Your task to perform on an android device: set the stopwatch Image 0: 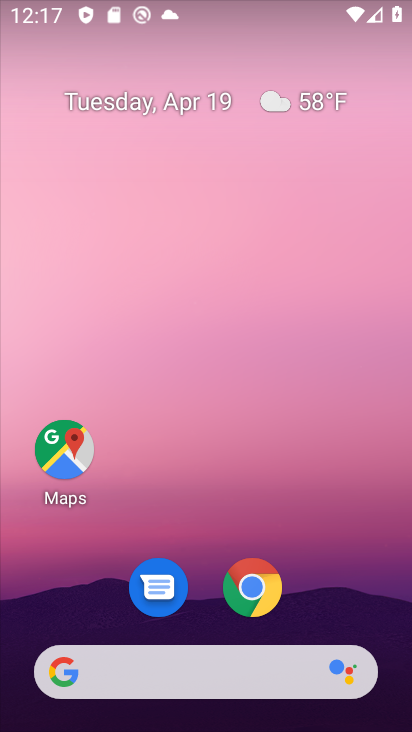
Step 0: drag from (333, 510) to (369, 243)
Your task to perform on an android device: set the stopwatch Image 1: 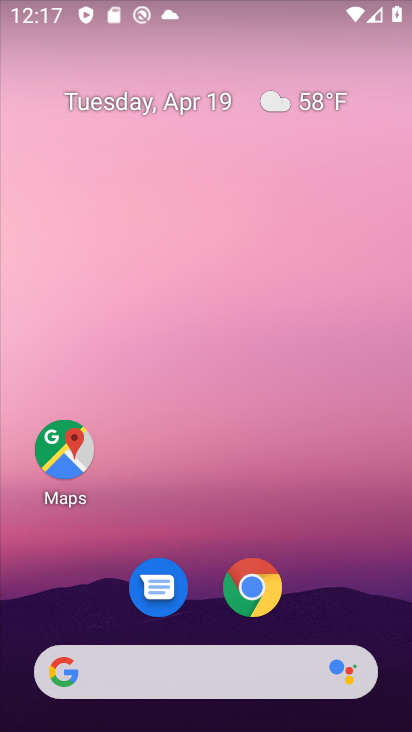
Step 1: drag from (375, 493) to (383, 95)
Your task to perform on an android device: set the stopwatch Image 2: 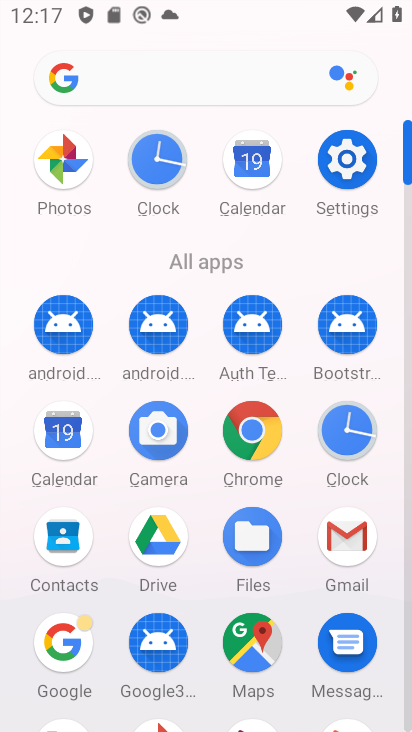
Step 2: click (358, 441)
Your task to perform on an android device: set the stopwatch Image 3: 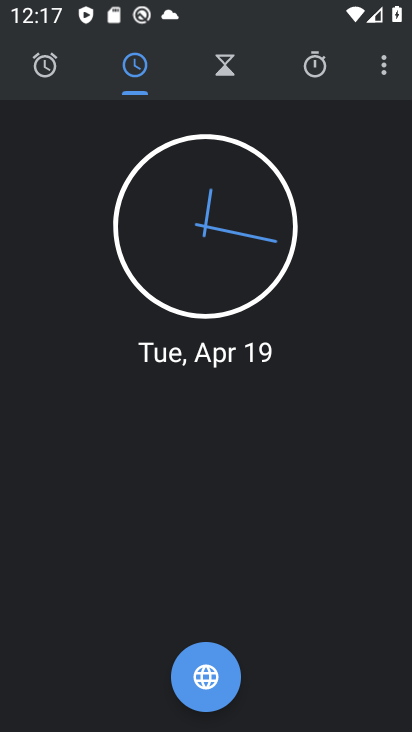
Step 3: click (399, 71)
Your task to perform on an android device: set the stopwatch Image 4: 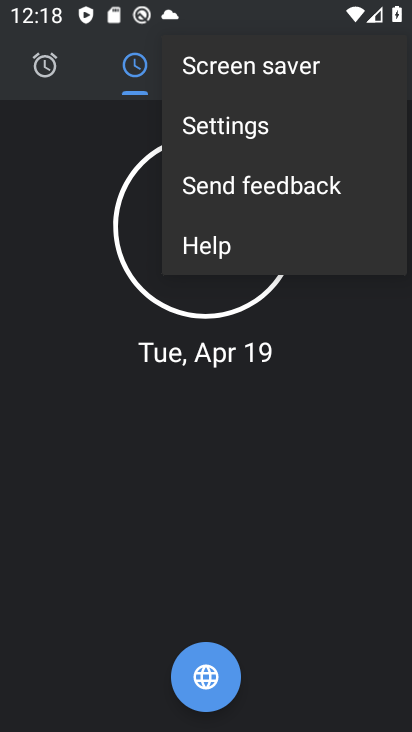
Step 4: click (177, 508)
Your task to perform on an android device: set the stopwatch Image 5: 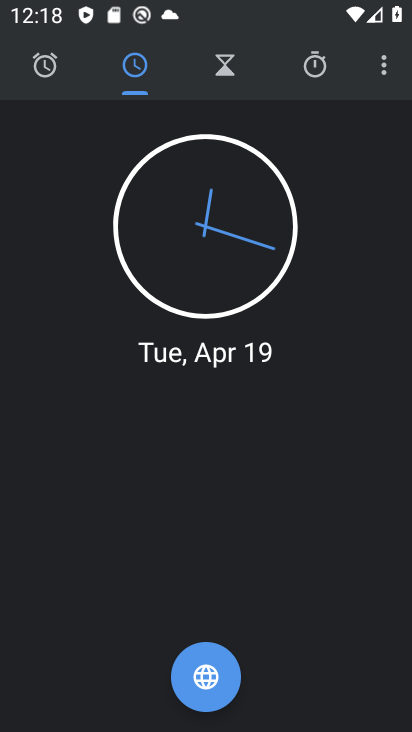
Step 5: click (306, 80)
Your task to perform on an android device: set the stopwatch Image 6: 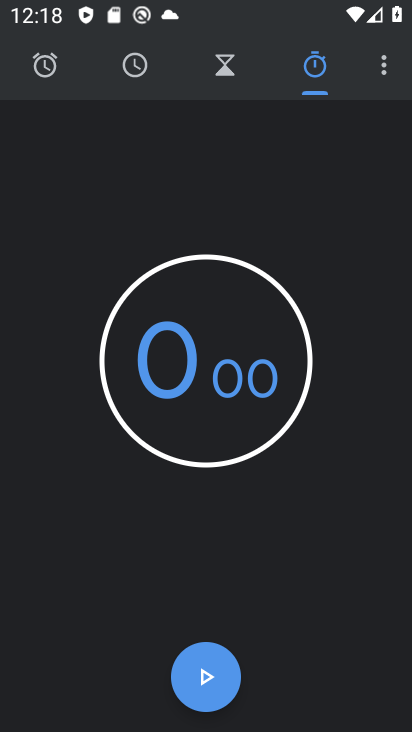
Step 6: click (218, 694)
Your task to perform on an android device: set the stopwatch Image 7: 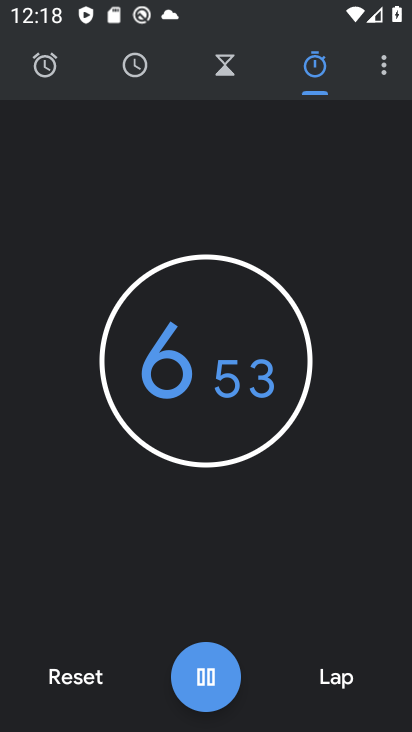
Step 7: click (206, 663)
Your task to perform on an android device: set the stopwatch Image 8: 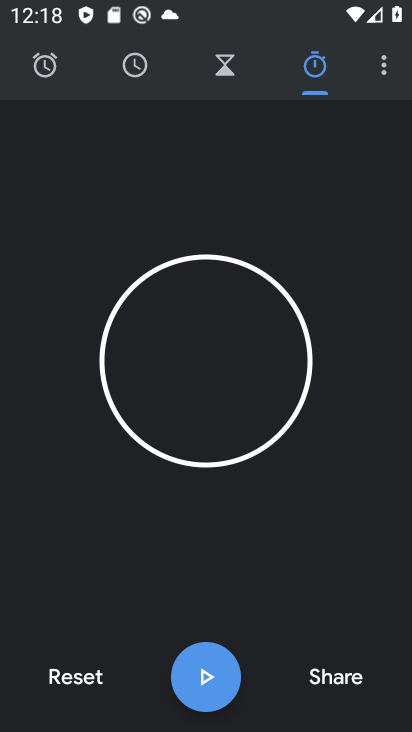
Step 8: task complete